Your task to perform on an android device: open chrome and create a bookmark for the current page Image 0: 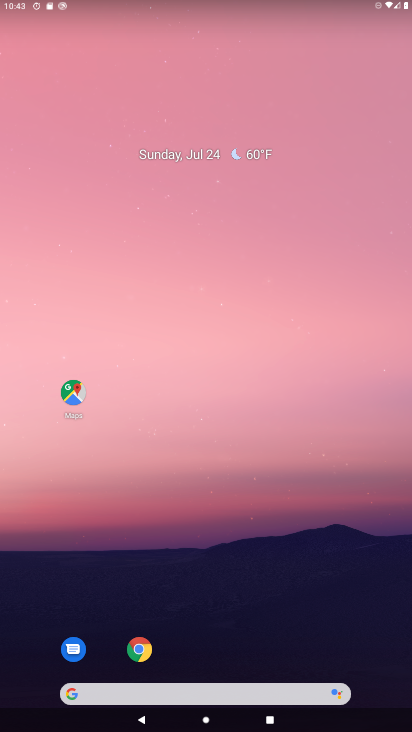
Step 0: drag from (340, 634) to (249, 70)
Your task to perform on an android device: open chrome and create a bookmark for the current page Image 1: 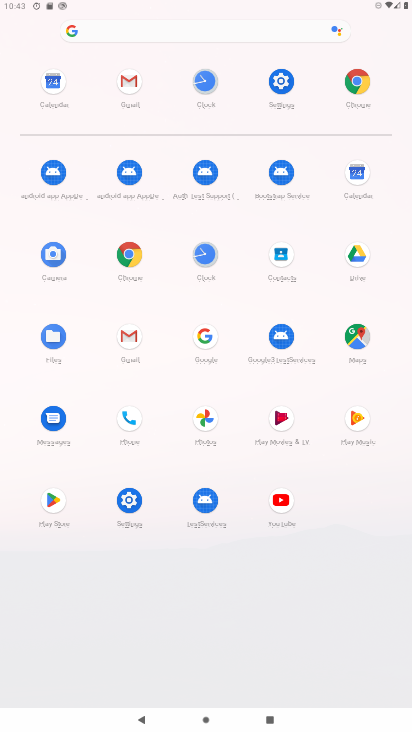
Step 1: click (355, 87)
Your task to perform on an android device: open chrome and create a bookmark for the current page Image 2: 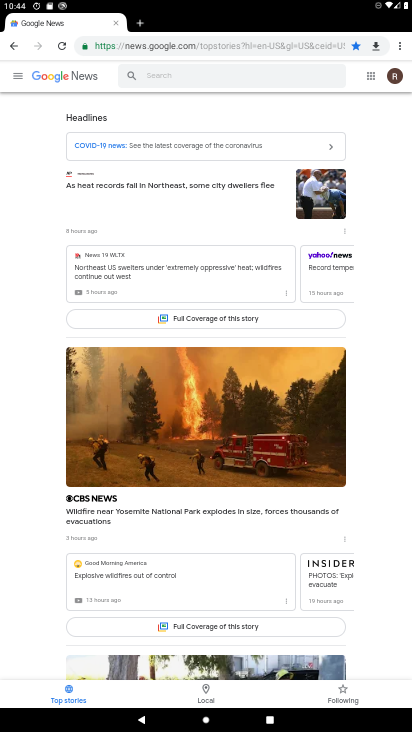
Step 2: task complete